Your task to perform on an android device: see creations saved in the google photos Image 0: 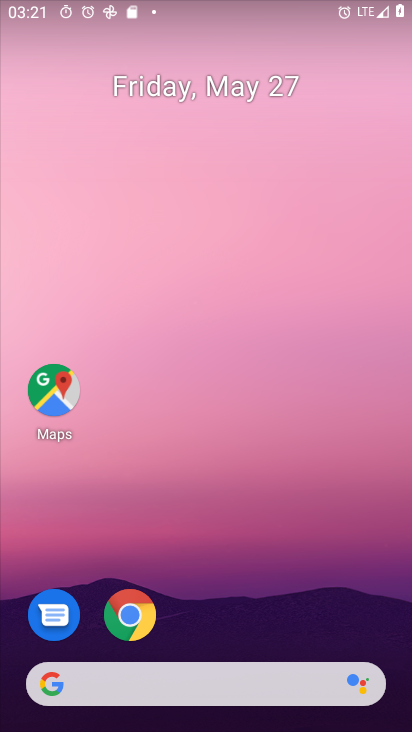
Step 0: drag from (381, 625) to (378, 224)
Your task to perform on an android device: see creations saved in the google photos Image 1: 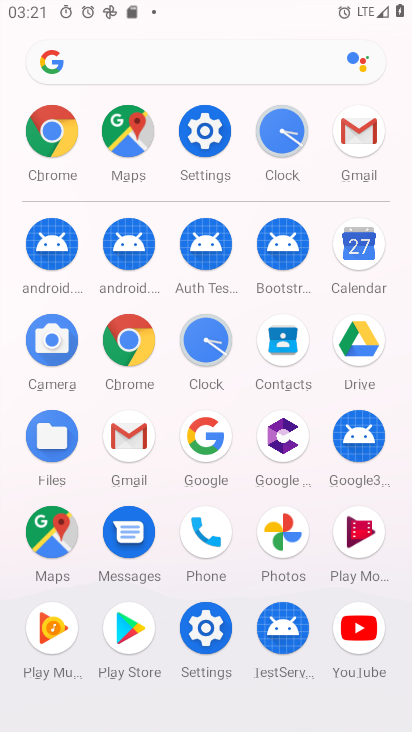
Step 1: click (293, 525)
Your task to perform on an android device: see creations saved in the google photos Image 2: 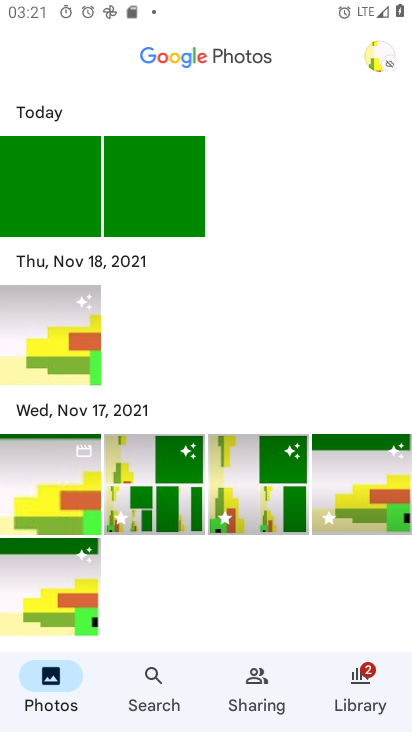
Step 2: click (159, 681)
Your task to perform on an android device: see creations saved in the google photos Image 3: 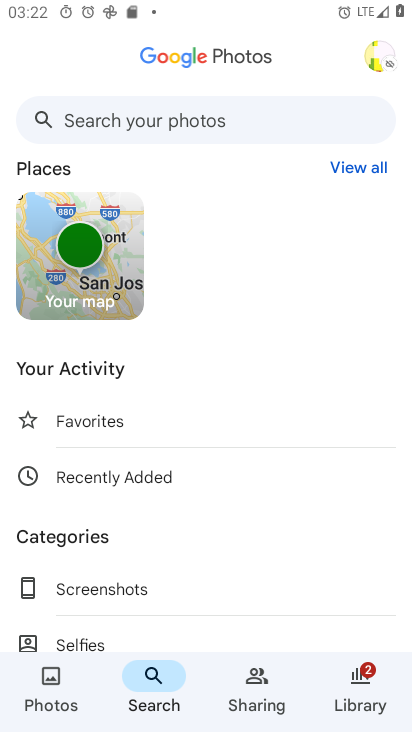
Step 3: drag from (253, 588) to (274, 478)
Your task to perform on an android device: see creations saved in the google photos Image 4: 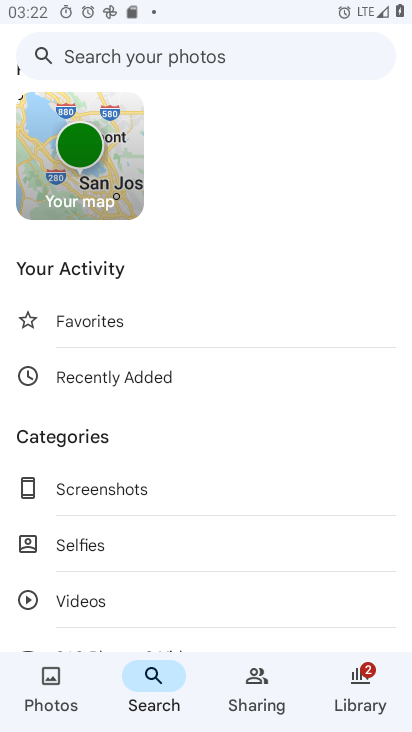
Step 4: drag from (295, 520) to (303, 427)
Your task to perform on an android device: see creations saved in the google photos Image 5: 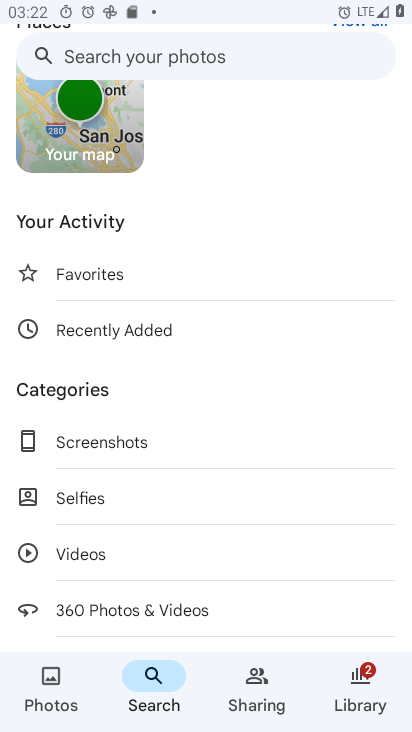
Step 5: drag from (298, 578) to (304, 450)
Your task to perform on an android device: see creations saved in the google photos Image 6: 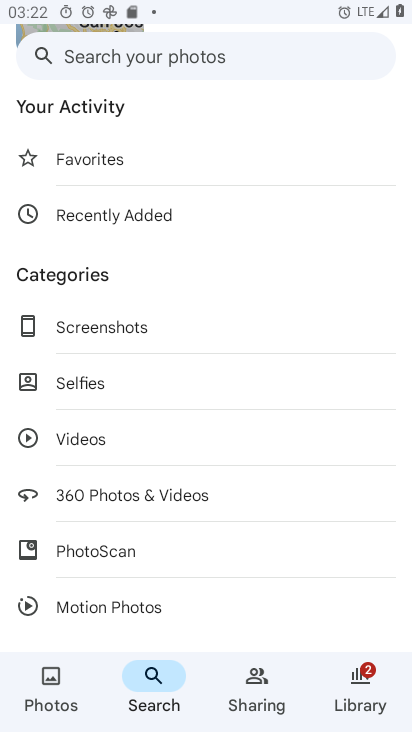
Step 6: drag from (288, 575) to (292, 482)
Your task to perform on an android device: see creations saved in the google photos Image 7: 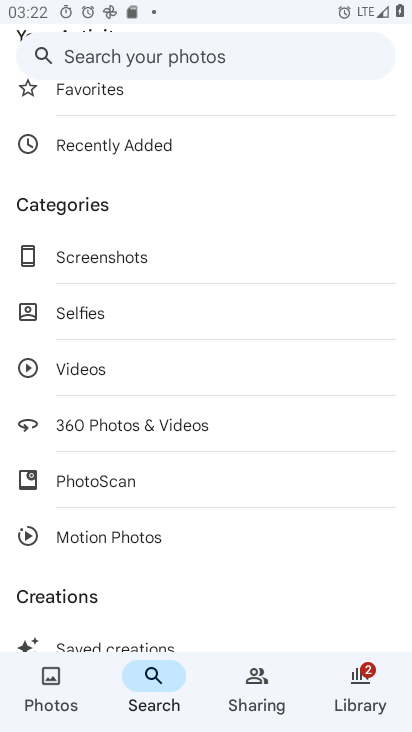
Step 7: drag from (284, 570) to (287, 454)
Your task to perform on an android device: see creations saved in the google photos Image 8: 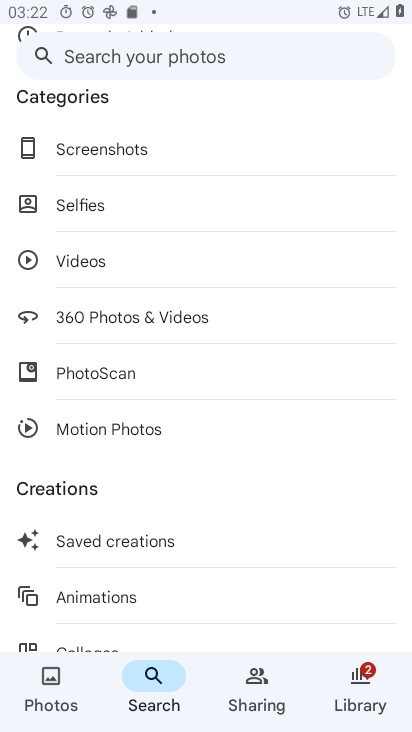
Step 8: drag from (286, 535) to (286, 462)
Your task to perform on an android device: see creations saved in the google photos Image 9: 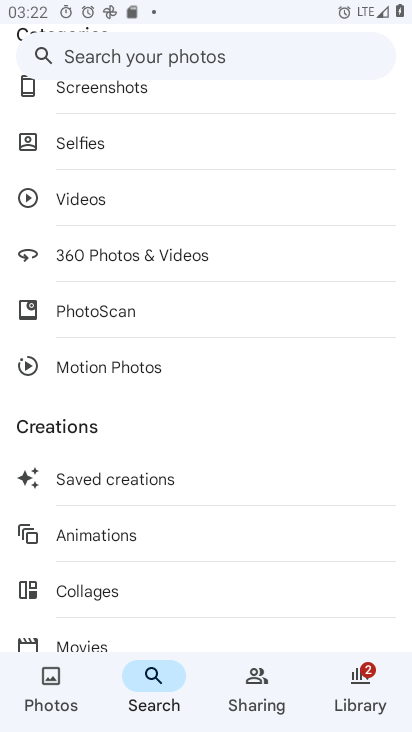
Step 9: click (208, 484)
Your task to perform on an android device: see creations saved in the google photos Image 10: 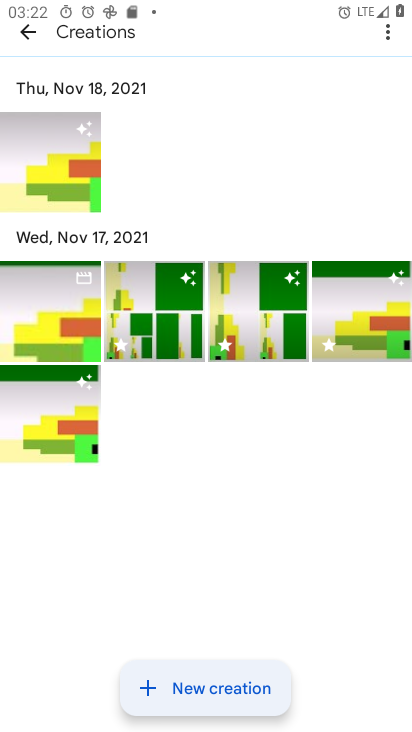
Step 10: task complete